Your task to perform on an android device: Turn off the flashlight Image 0: 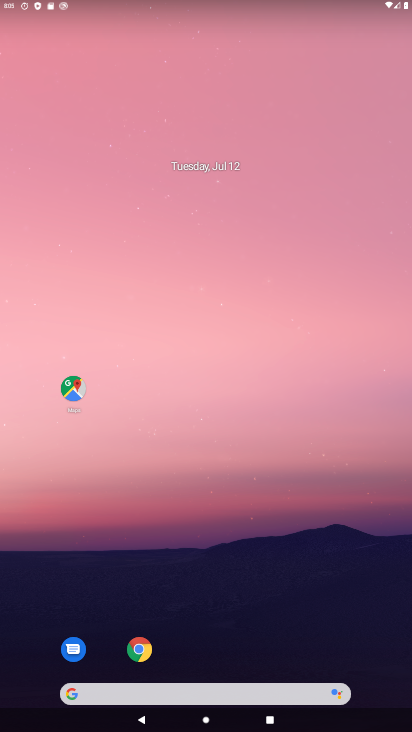
Step 0: drag from (326, 606) to (255, 198)
Your task to perform on an android device: Turn off the flashlight Image 1: 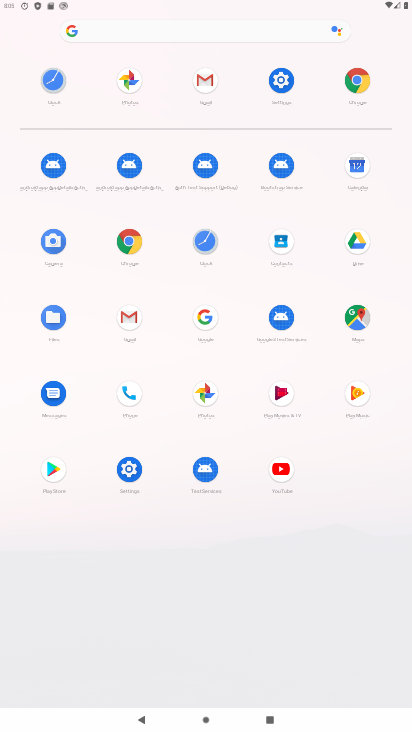
Step 1: click (122, 470)
Your task to perform on an android device: Turn off the flashlight Image 2: 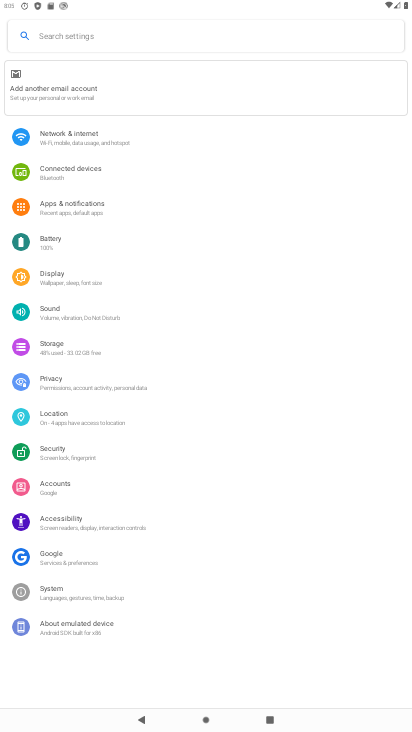
Step 2: click (86, 279)
Your task to perform on an android device: Turn off the flashlight Image 3: 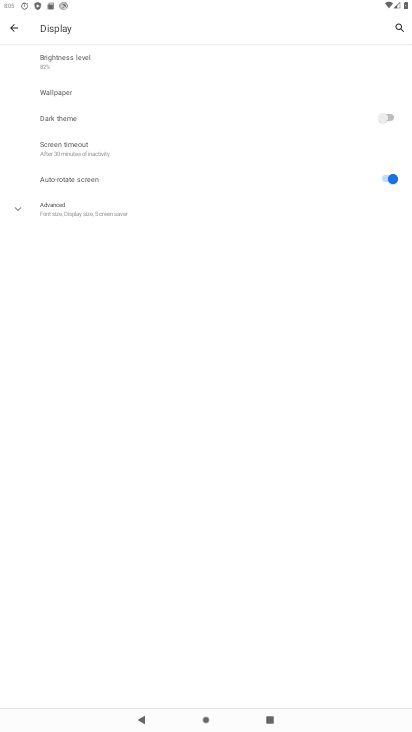
Step 3: task complete